Your task to perform on an android device: turn on the 24-hour format for clock Image 0: 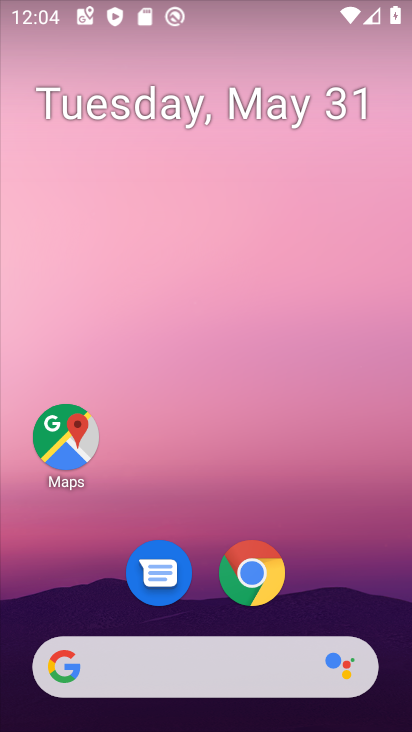
Step 0: drag from (203, 699) to (391, 9)
Your task to perform on an android device: turn on the 24-hour format for clock Image 1: 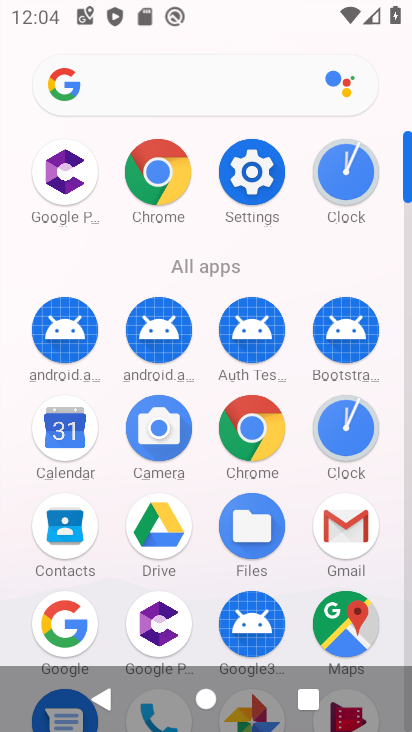
Step 1: click (348, 429)
Your task to perform on an android device: turn on the 24-hour format for clock Image 2: 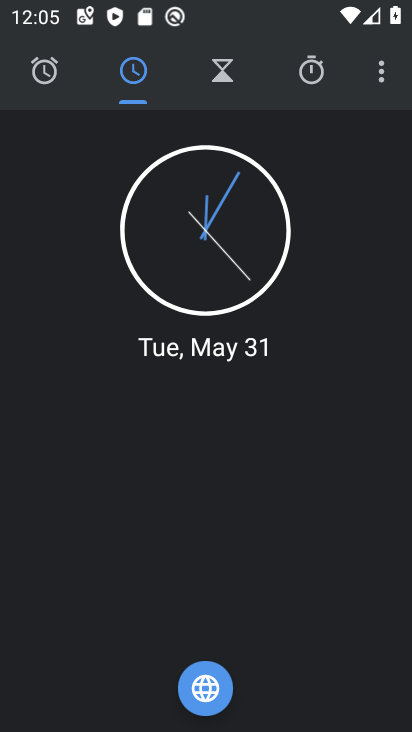
Step 2: click (369, 80)
Your task to perform on an android device: turn on the 24-hour format for clock Image 3: 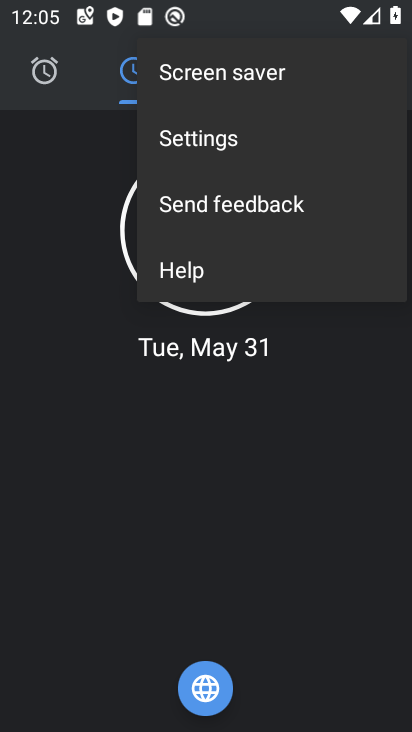
Step 3: click (229, 138)
Your task to perform on an android device: turn on the 24-hour format for clock Image 4: 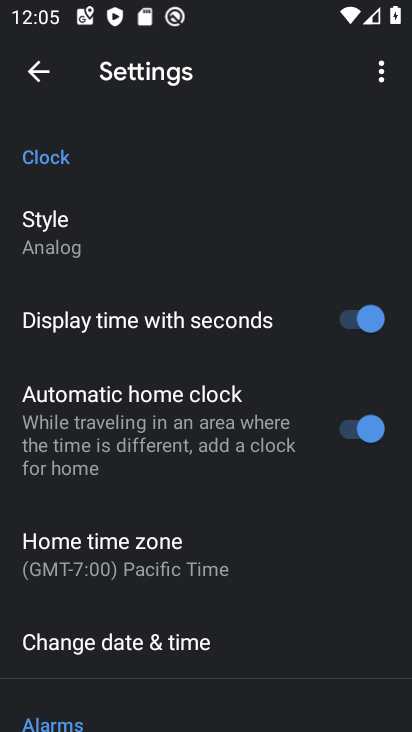
Step 4: click (199, 654)
Your task to perform on an android device: turn on the 24-hour format for clock Image 5: 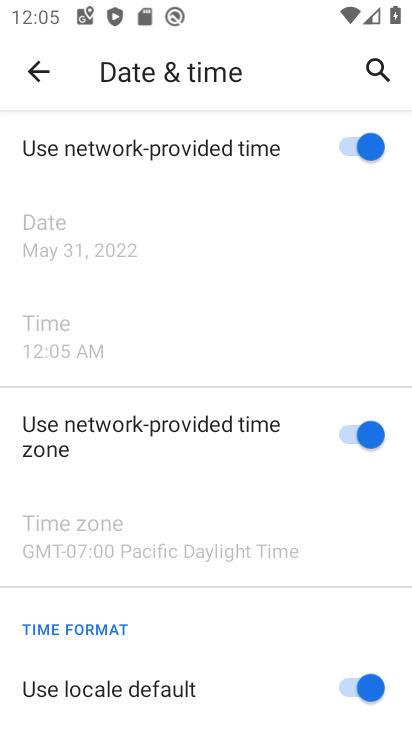
Step 5: drag from (188, 521) to (179, 124)
Your task to perform on an android device: turn on the 24-hour format for clock Image 6: 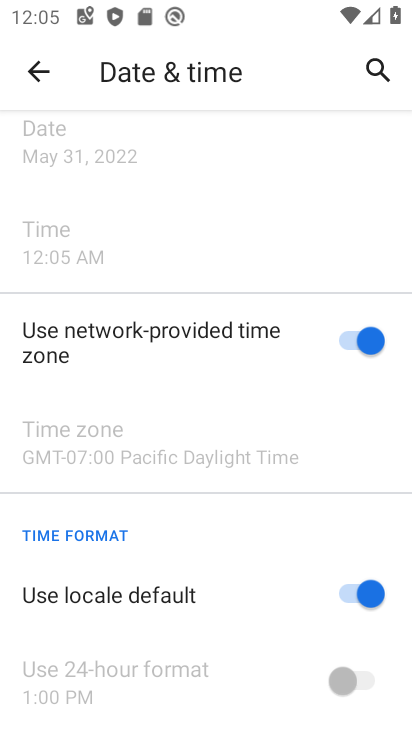
Step 6: click (354, 585)
Your task to perform on an android device: turn on the 24-hour format for clock Image 7: 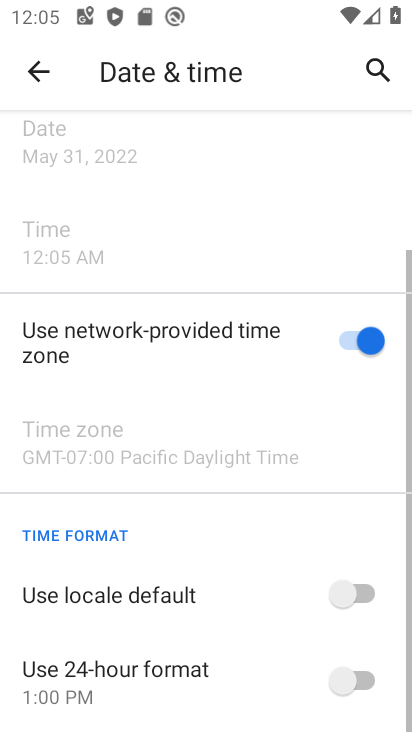
Step 7: click (348, 686)
Your task to perform on an android device: turn on the 24-hour format for clock Image 8: 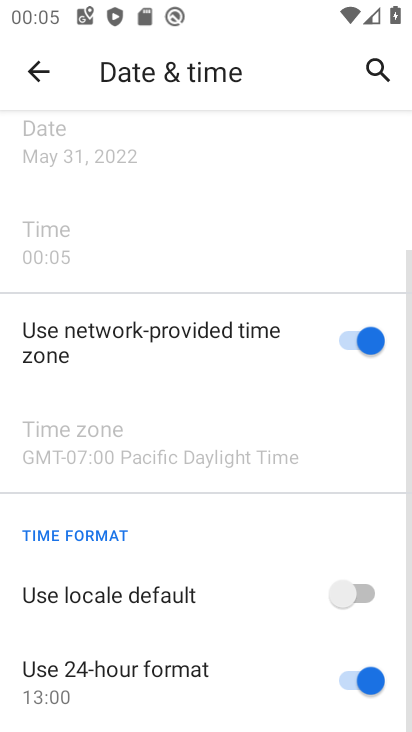
Step 8: task complete